Your task to perform on an android device: open app "Life360: Find Family & Friends" (install if not already installed) Image 0: 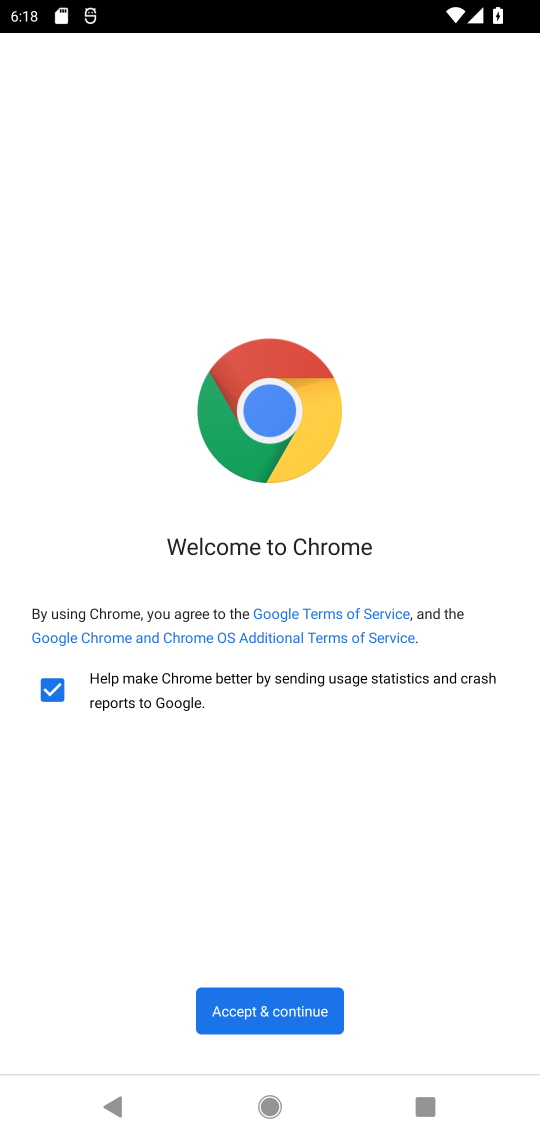
Step 0: press home button
Your task to perform on an android device: open app "Life360: Find Family & Friends" (install if not already installed) Image 1: 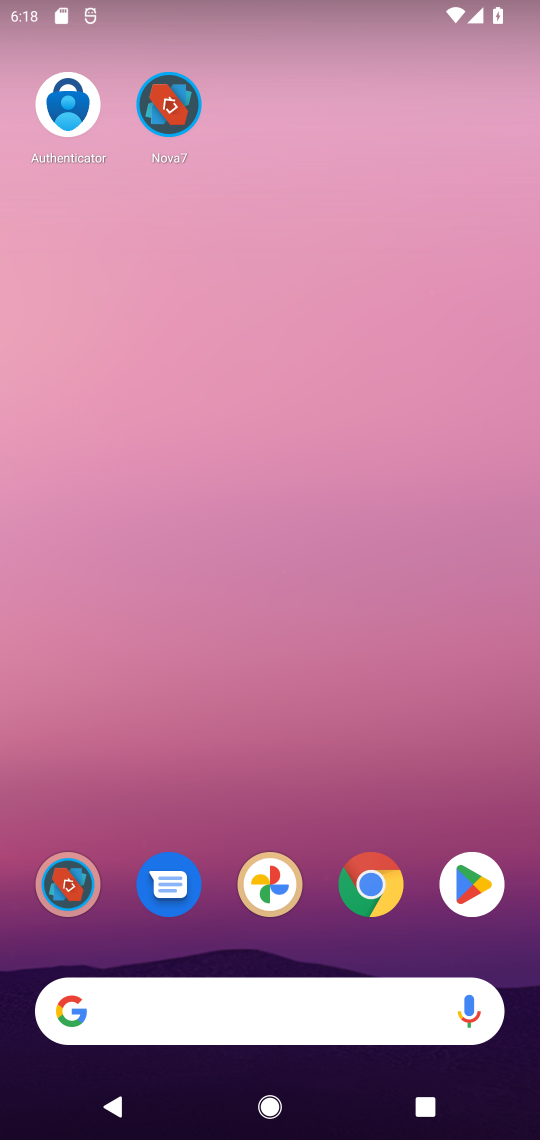
Step 1: click (470, 873)
Your task to perform on an android device: open app "Life360: Find Family & Friends" (install if not already installed) Image 2: 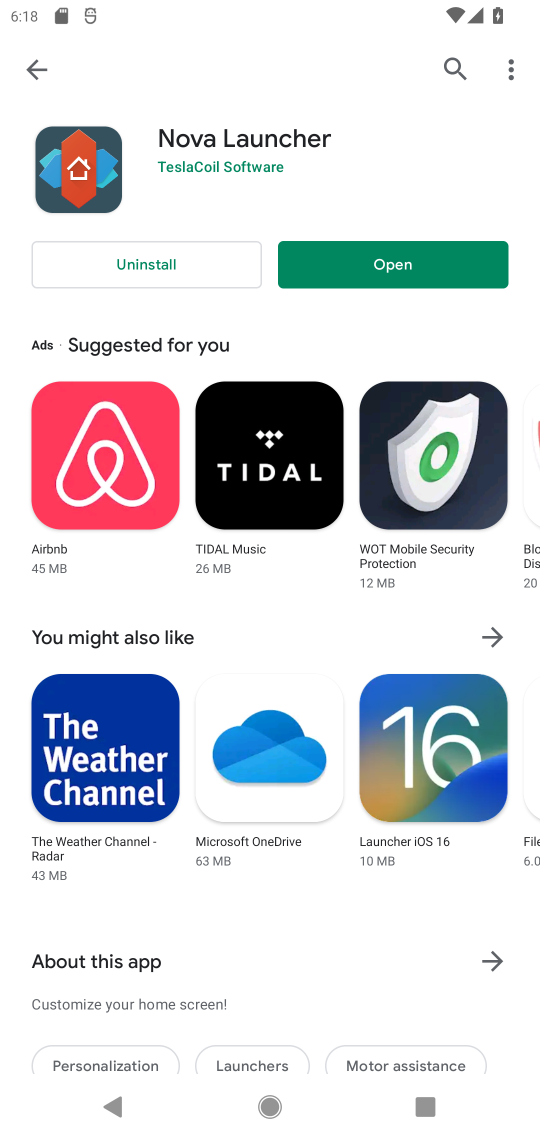
Step 2: click (445, 77)
Your task to perform on an android device: open app "Life360: Find Family & Friends" (install if not already installed) Image 3: 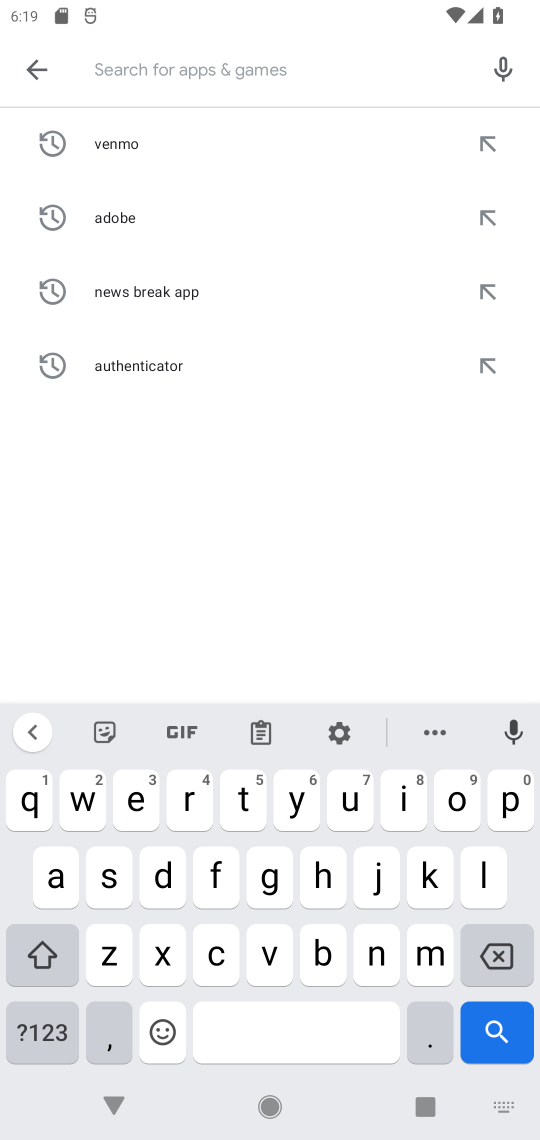
Step 3: click (481, 875)
Your task to perform on an android device: open app "Life360: Find Family & Friends" (install if not already installed) Image 4: 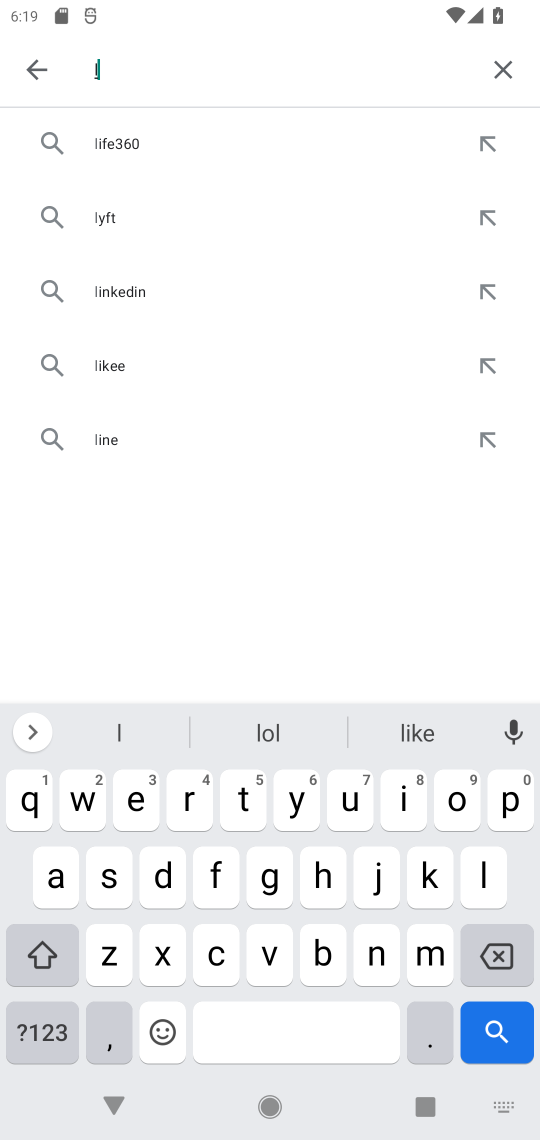
Step 4: click (406, 798)
Your task to perform on an android device: open app "Life360: Find Family & Friends" (install if not already installed) Image 5: 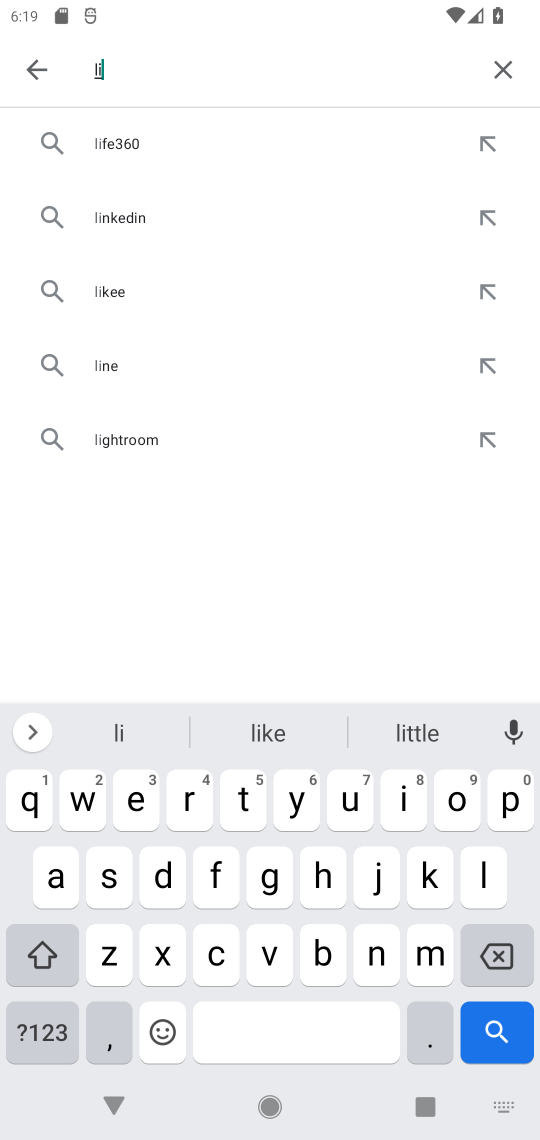
Step 5: click (129, 141)
Your task to perform on an android device: open app "Life360: Find Family & Friends" (install if not already installed) Image 6: 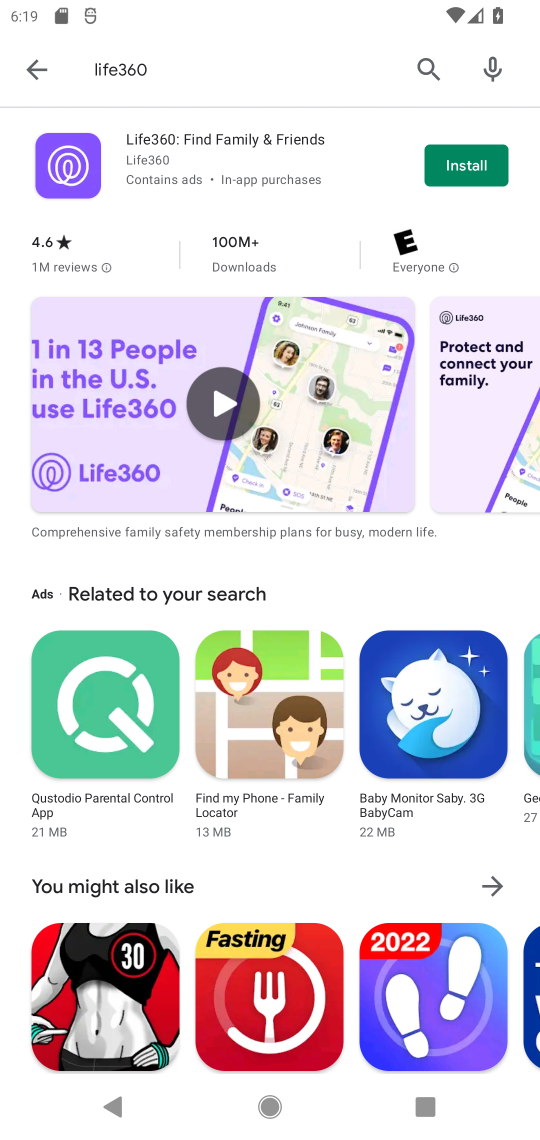
Step 6: click (452, 168)
Your task to perform on an android device: open app "Life360: Find Family & Friends" (install if not already installed) Image 7: 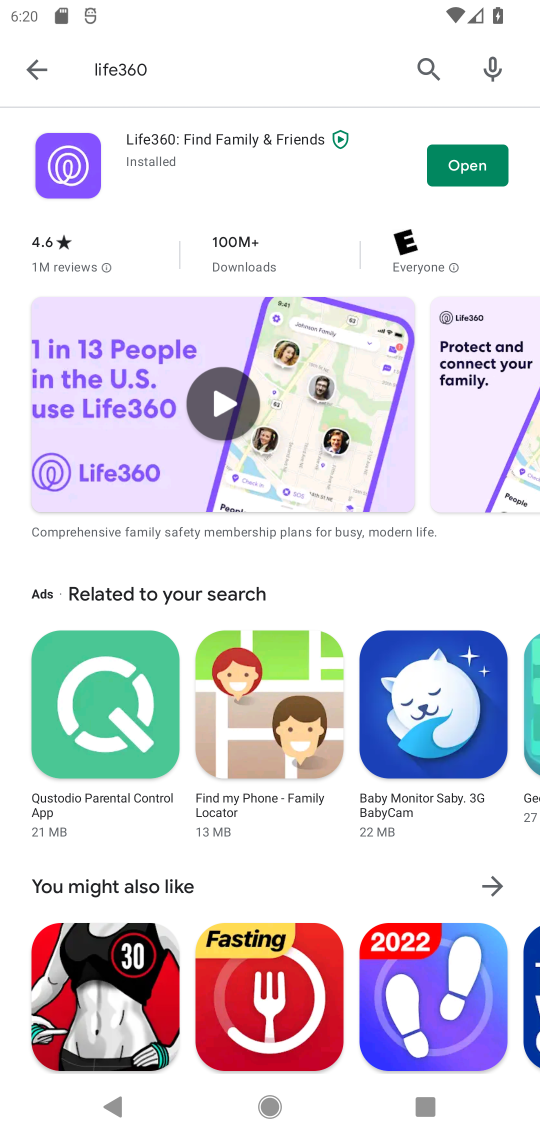
Step 7: click (464, 160)
Your task to perform on an android device: open app "Life360: Find Family & Friends" (install if not already installed) Image 8: 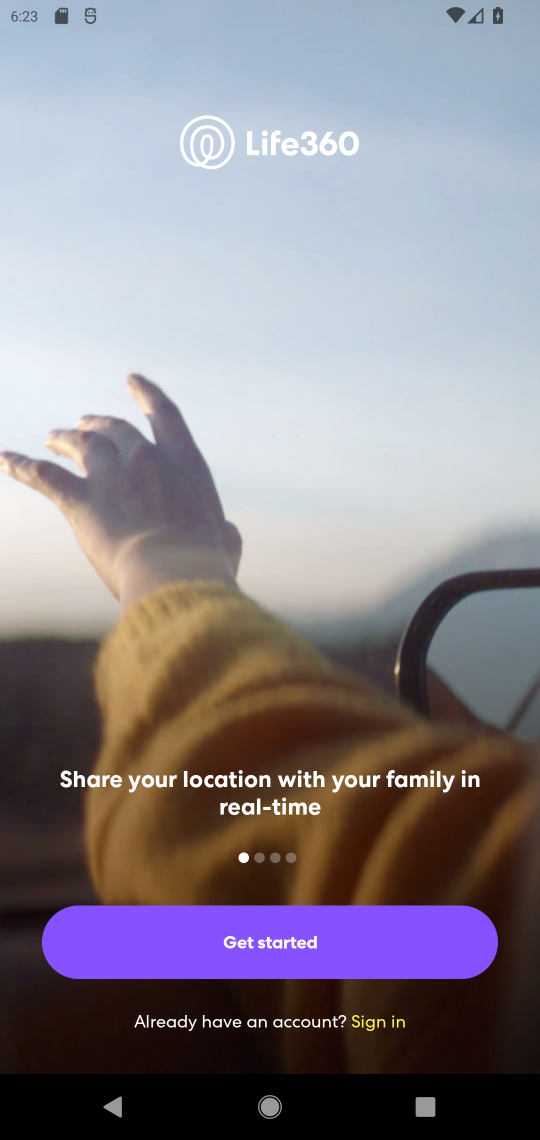
Step 8: task complete